Your task to perform on an android device: turn off priority inbox in the gmail app Image 0: 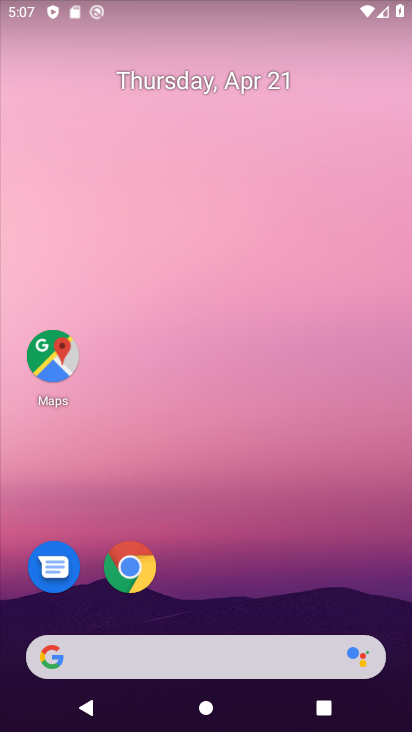
Step 0: click (263, 291)
Your task to perform on an android device: turn off priority inbox in the gmail app Image 1: 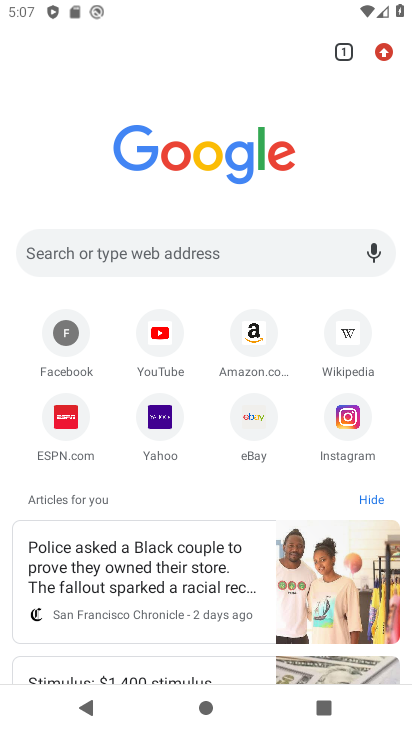
Step 1: press home button
Your task to perform on an android device: turn off priority inbox in the gmail app Image 2: 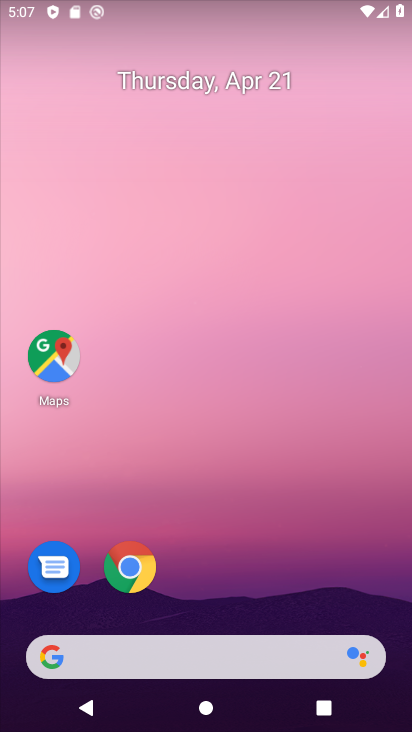
Step 2: drag from (178, 598) to (219, 103)
Your task to perform on an android device: turn off priority inbox in the gmail app Image 3: 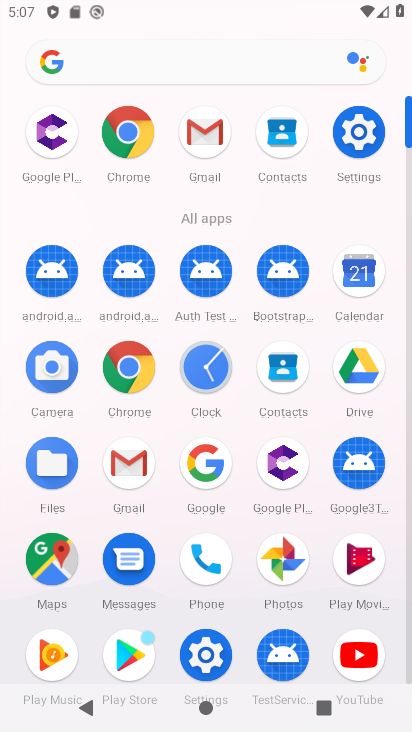
Step 3: click (134, 464)
Your task to perform on an android device: turn off priority inbox in the gmail app Image 4: 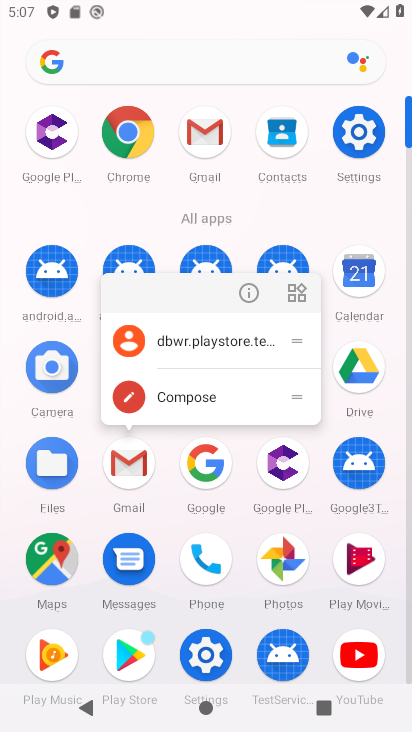
Step 4: click (225, 352)
Your task to perform on an android device: turn off priority inbox in the gmail app Image 5: 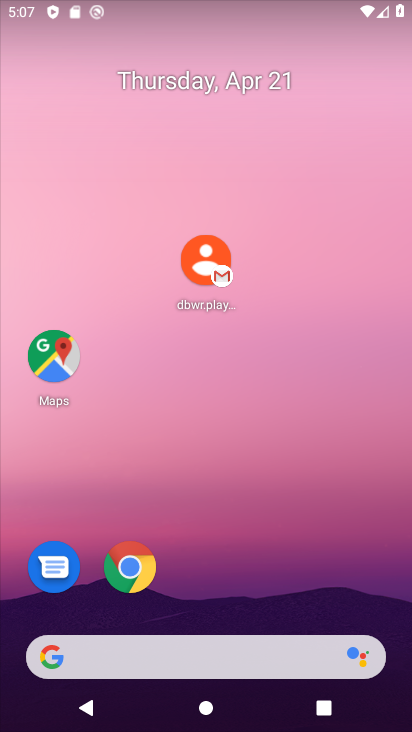
Step 5: drag from (274, 595) to (275, 23)
Your task to perform on an android device: turn off priority inbox in the gmail app Image 6: 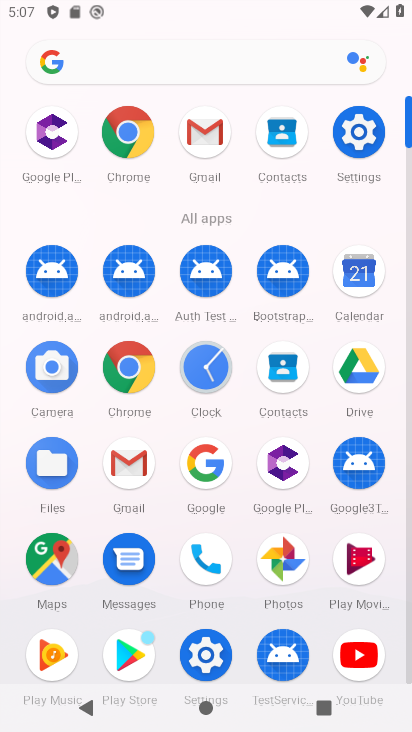
Step 6: click (127, 478)
Your task to perform on an android device: turn off priority inbox in the gmail app Image 7: 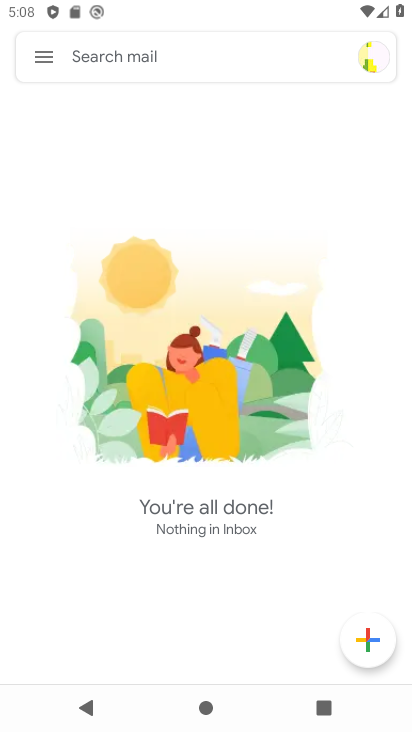
Step 7: click (41, 55)
Your task to perform on an android device: turn off priority inbox in the gmail app Image 8: 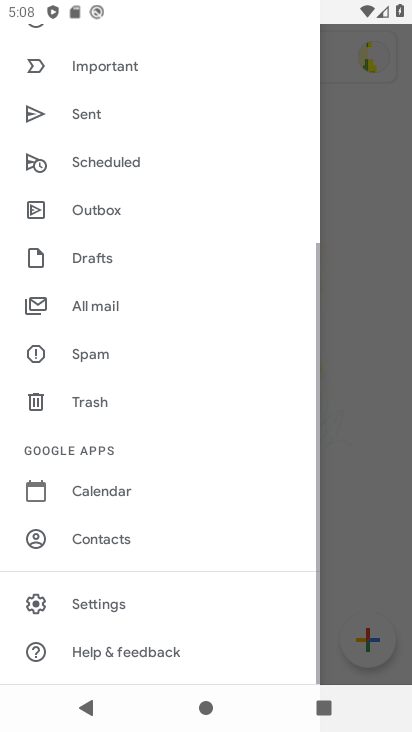
Step 8: click (96, 603)
Your task to perform on an android device: turn off priority inbox in the gmail app Image 9: 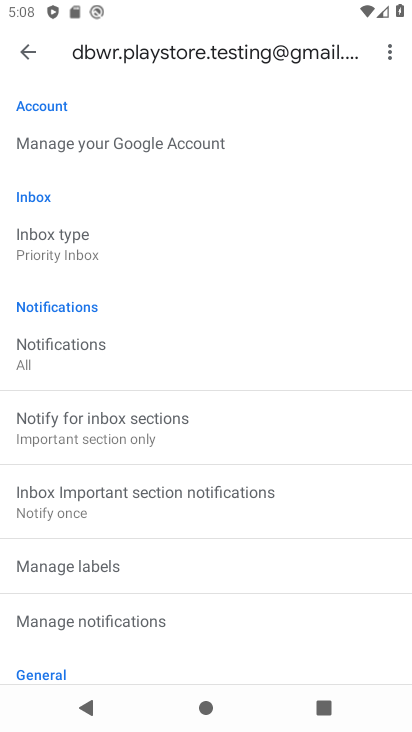
Step 9: click (53, 248)
Your task to perform on an android device: turn off priority inbox in the gmail app Image 10: 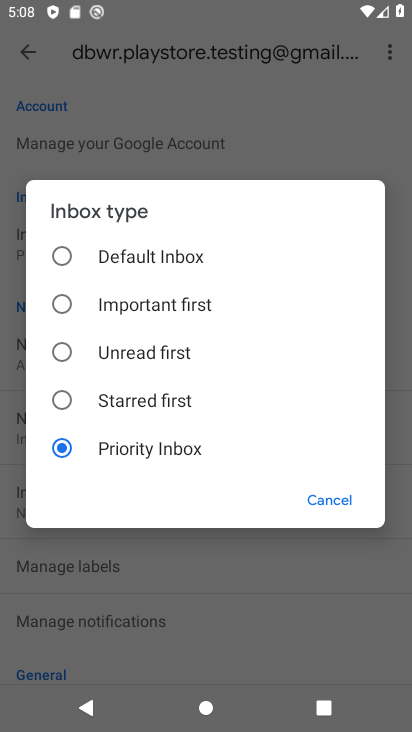
Step 10: click (75, 255)
Your task to perform on an android device: turn off priority inbox in the gmail app Image 11: 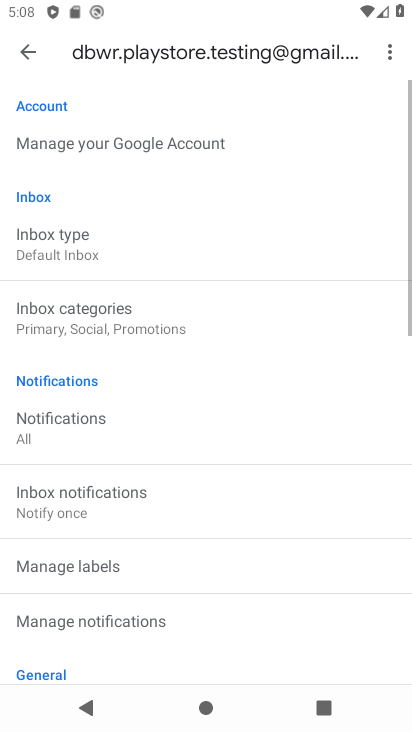
Step 11: task complete